Your task to perform on an android device: Clear the cart on target.com. Add macbook pro 13 inch to the cart on target.com, then select checkout. Image 0: 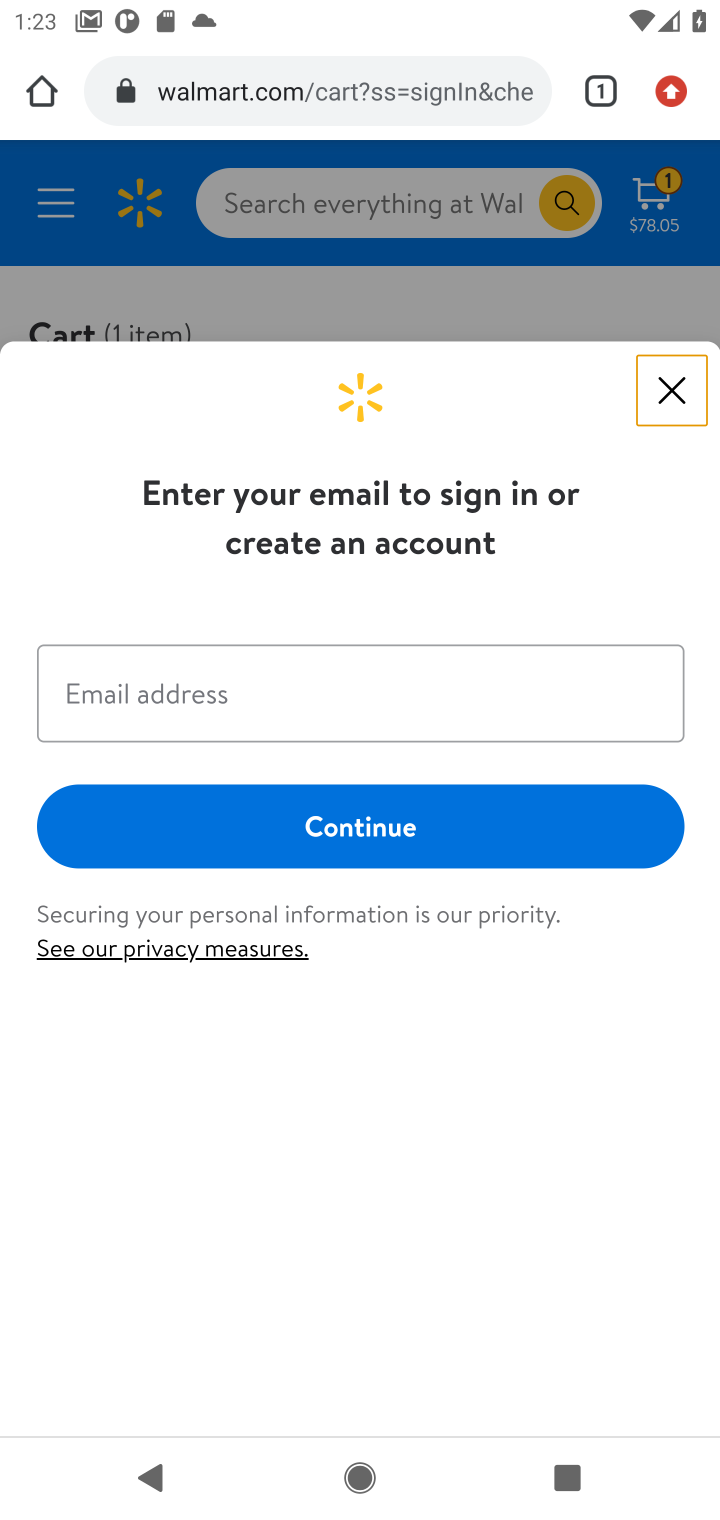
Step 0: press home button
Your task to perform on an android device: Clear the cart on target.com. Add macbook pro 13 inch to the cart on target.com, then select checkout. Image 1: 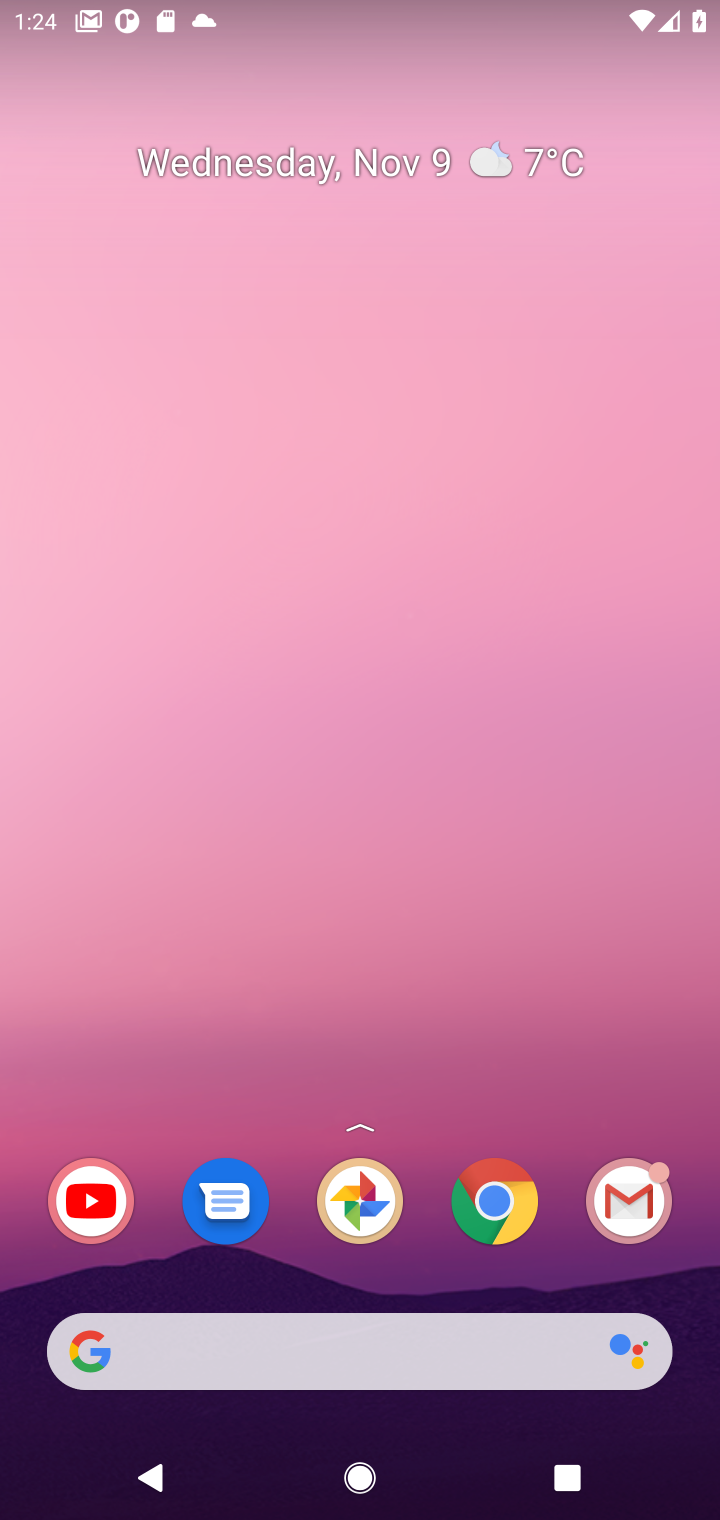
Step 1: click (330, 1370)
Your task to perform on an android device: Clear the cart on target.com. Add macbook pro 13 inch to the cart on target.com, then select checkout. Image 2: 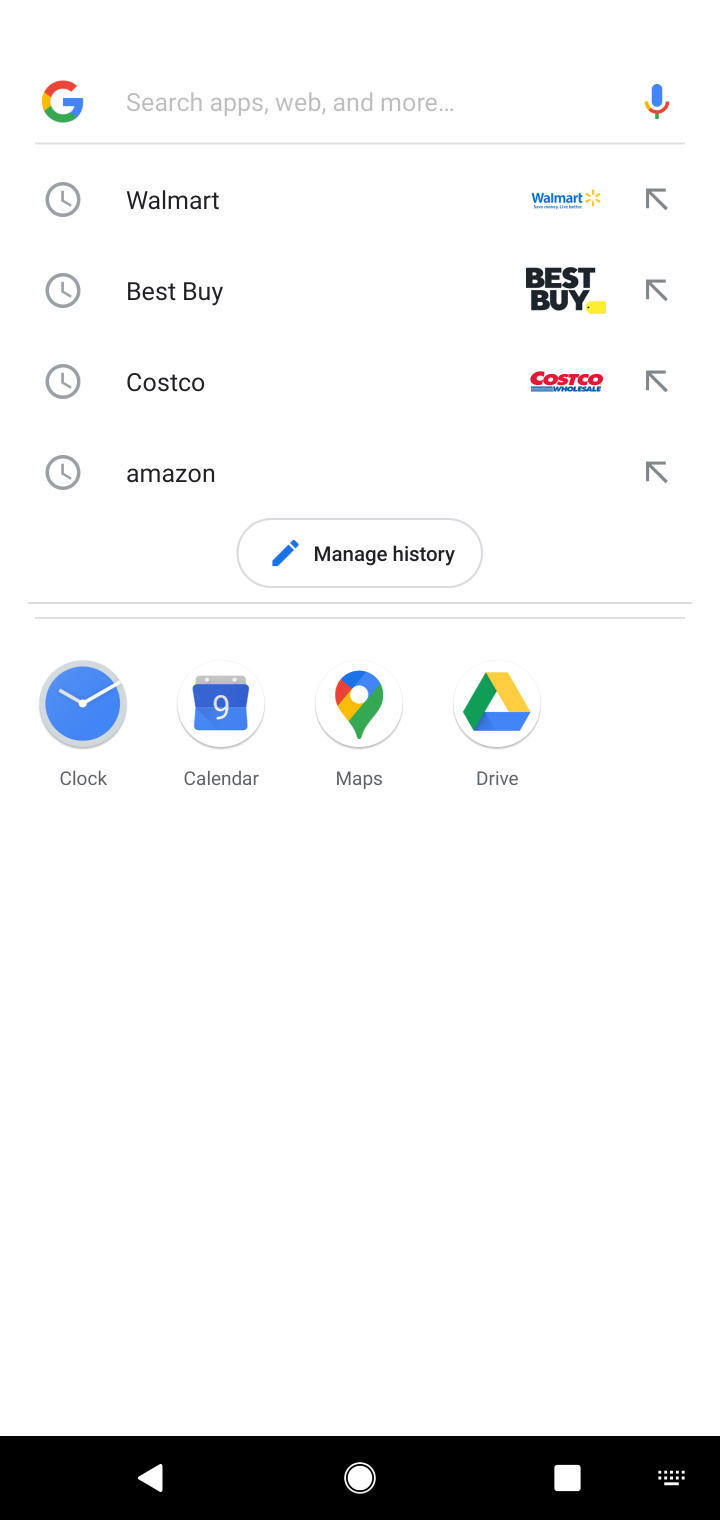
Step 2: type " target.com"
Your task to perform on an android device: Clear the cart on target.com. Add macbook pro 13 inch to the cart on target.com, then select checkout. Image 3: 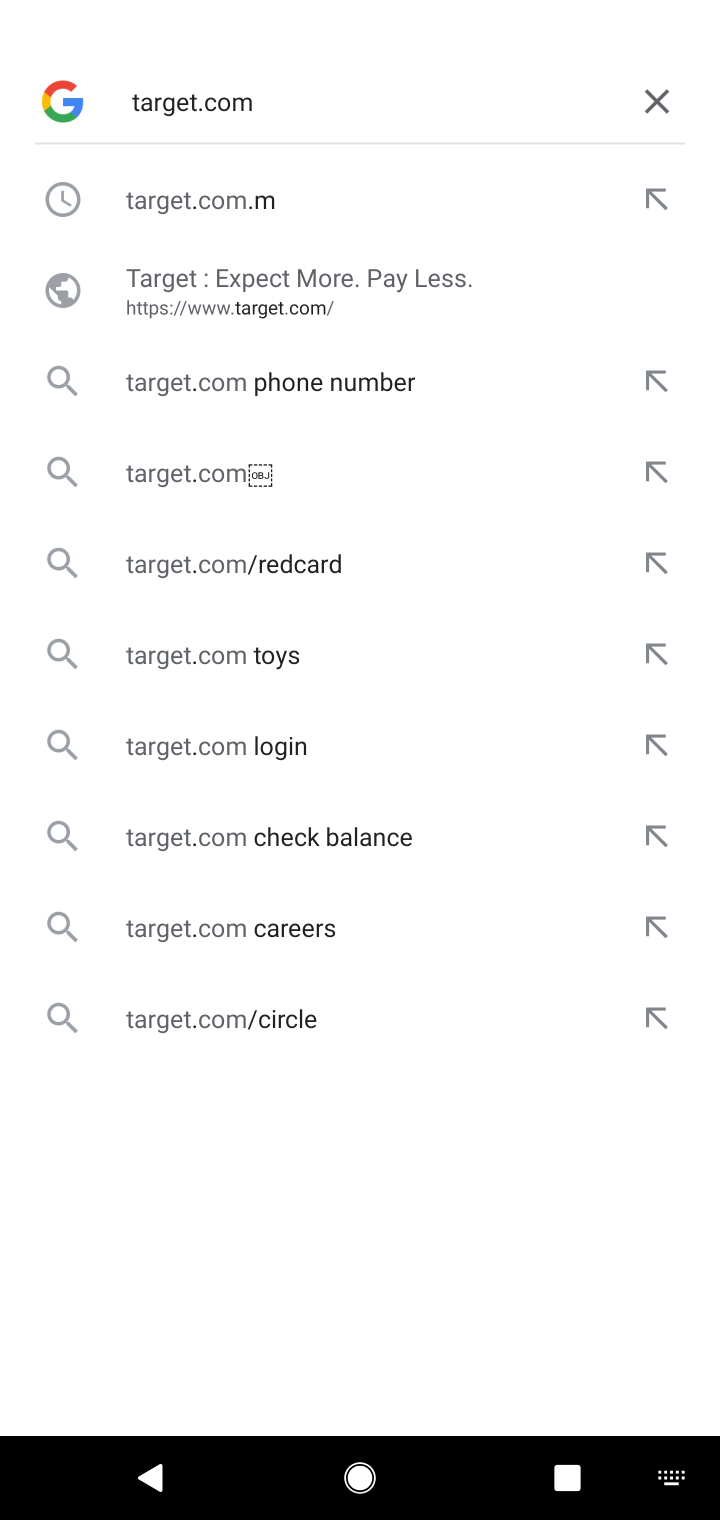
Step 3: click (288, 302)
Your task to perform on an android device: Clear the cart on target.com. Add macbook pro 13 inch to the cart on target.com, then select checkout. Image 4: 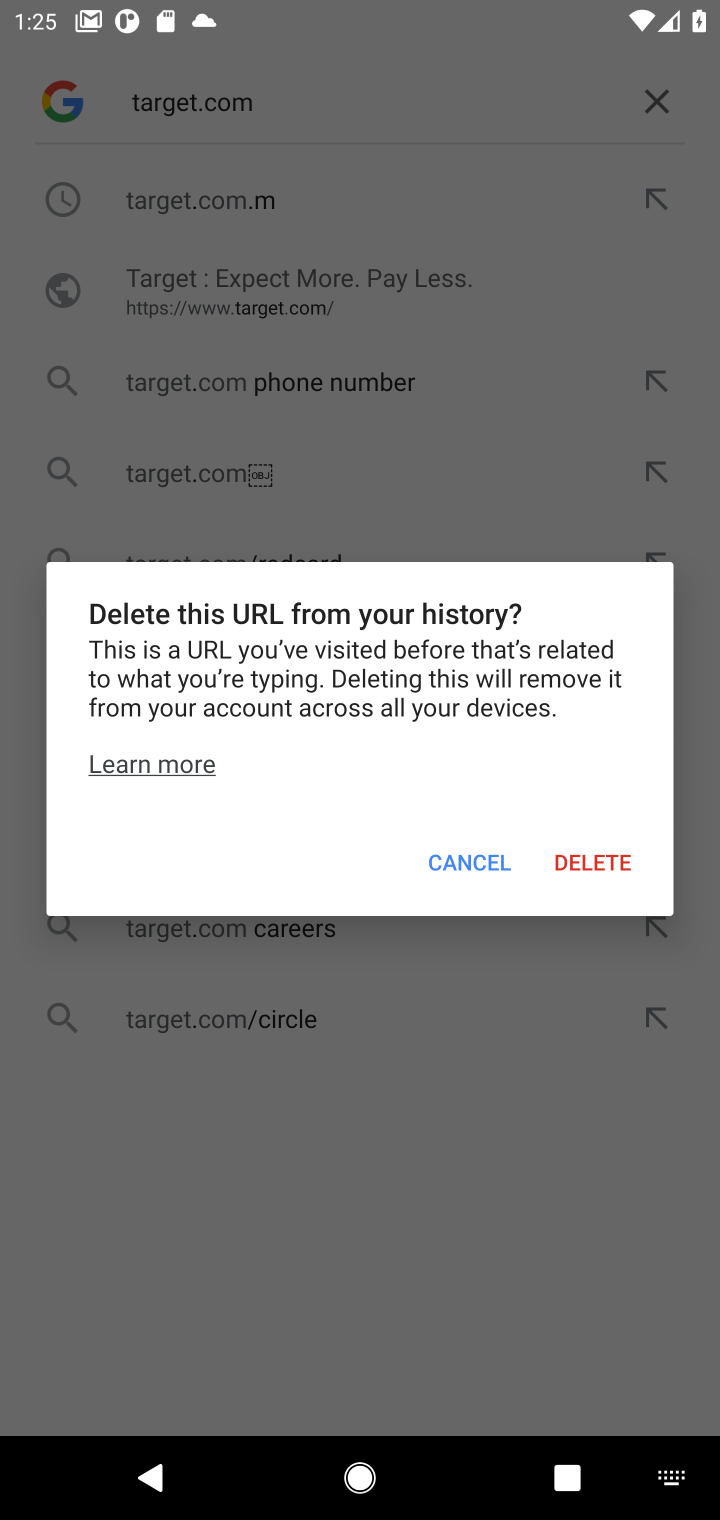
Step 4: click (460, 862)
Your task to perform on an android device: Clear the cart on target.com. Add macbook pro 13 inch to the cart on target.com, then select checkout. Image 5: 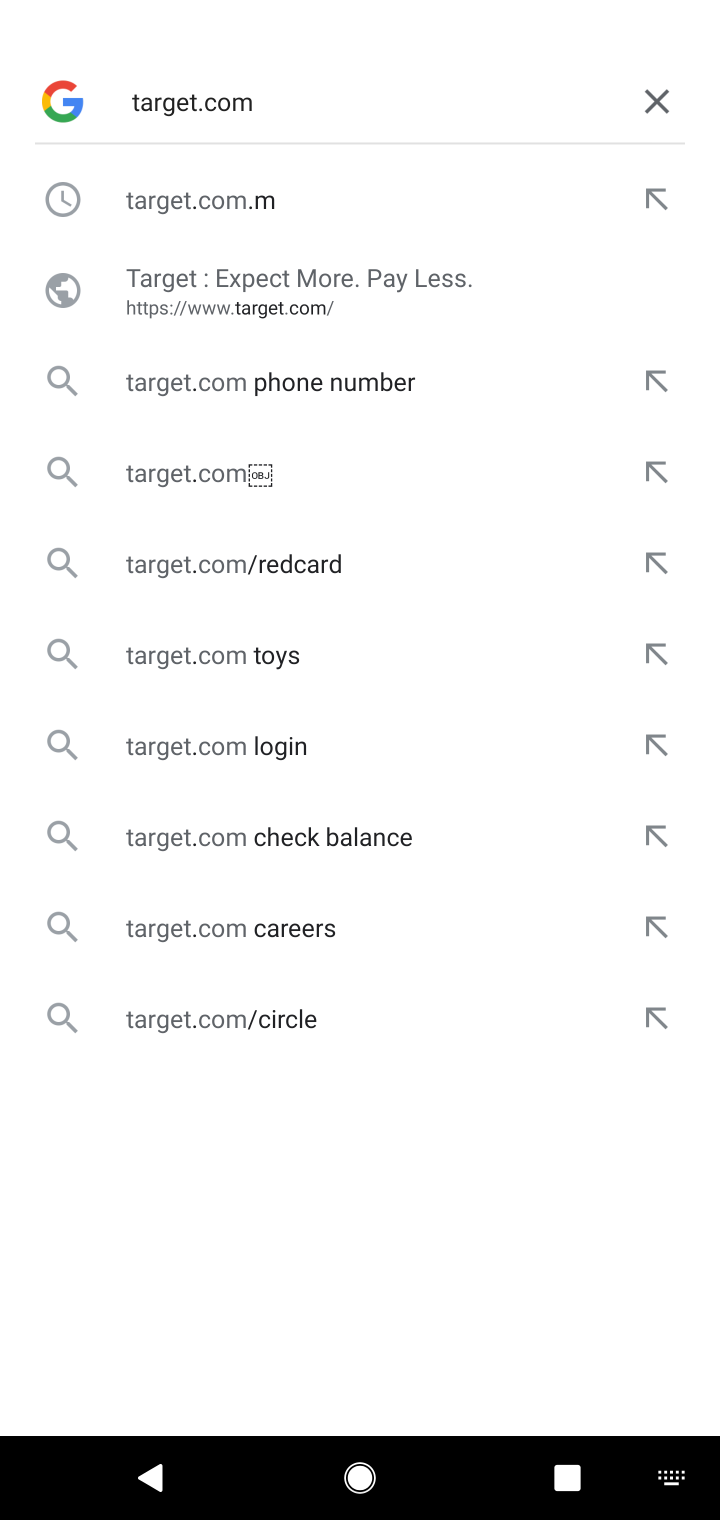
Step 5: click (249, 308)
Your task to perform on an android device: Clear the cart on target.com. Add macbook pro 13 inch to the cart on target.com, then select checkout. Image 6: 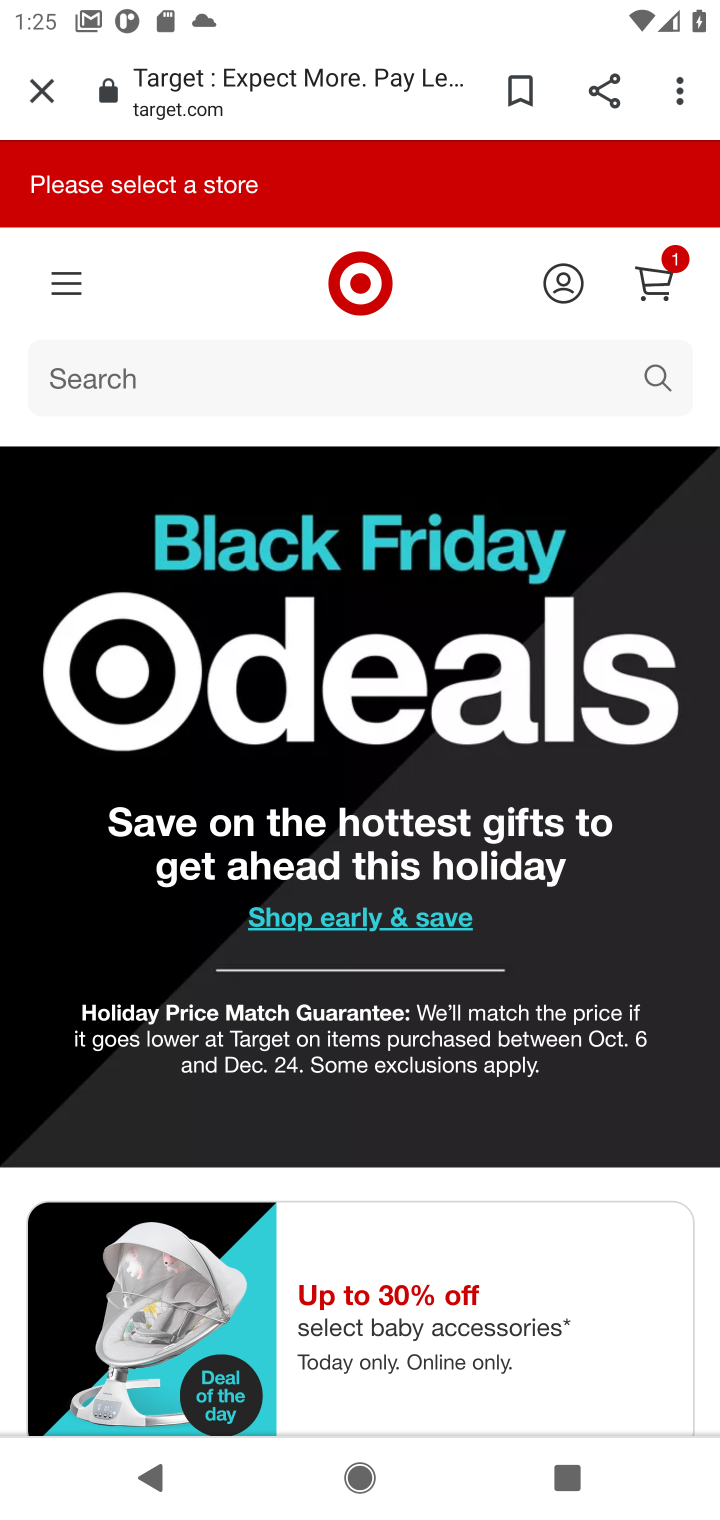
Step 6: click (393, 375)
Your task to perform on an android device: Clear the cart on target.com. Add macbook pro 13 inch to the cart on target.com, then select checkout. Image 7: 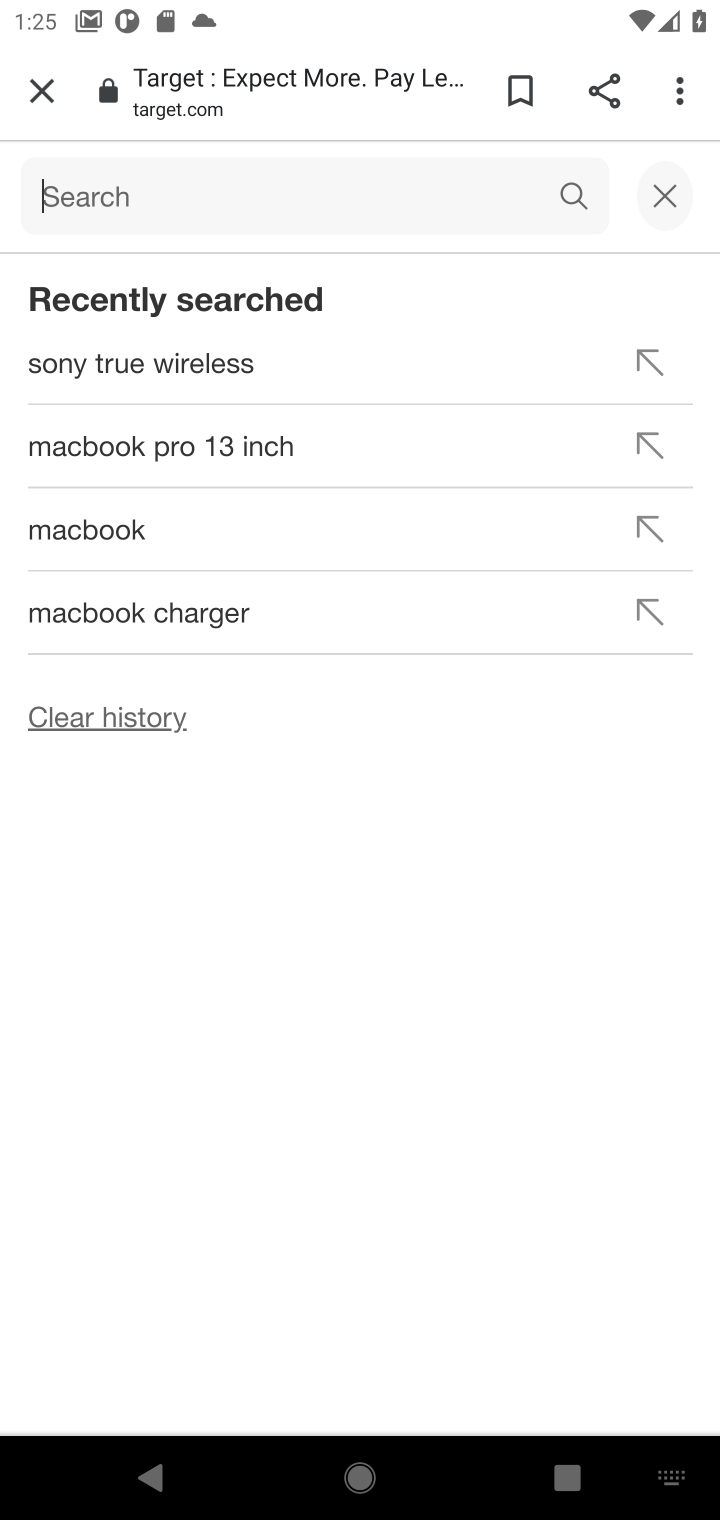
Step 7: type " macbook pro 13"
Your task to perform on an android device: Clear the cart on target.com. Add macbook pro 13 inch to the cart on target.com, then select checkout. Image 8: 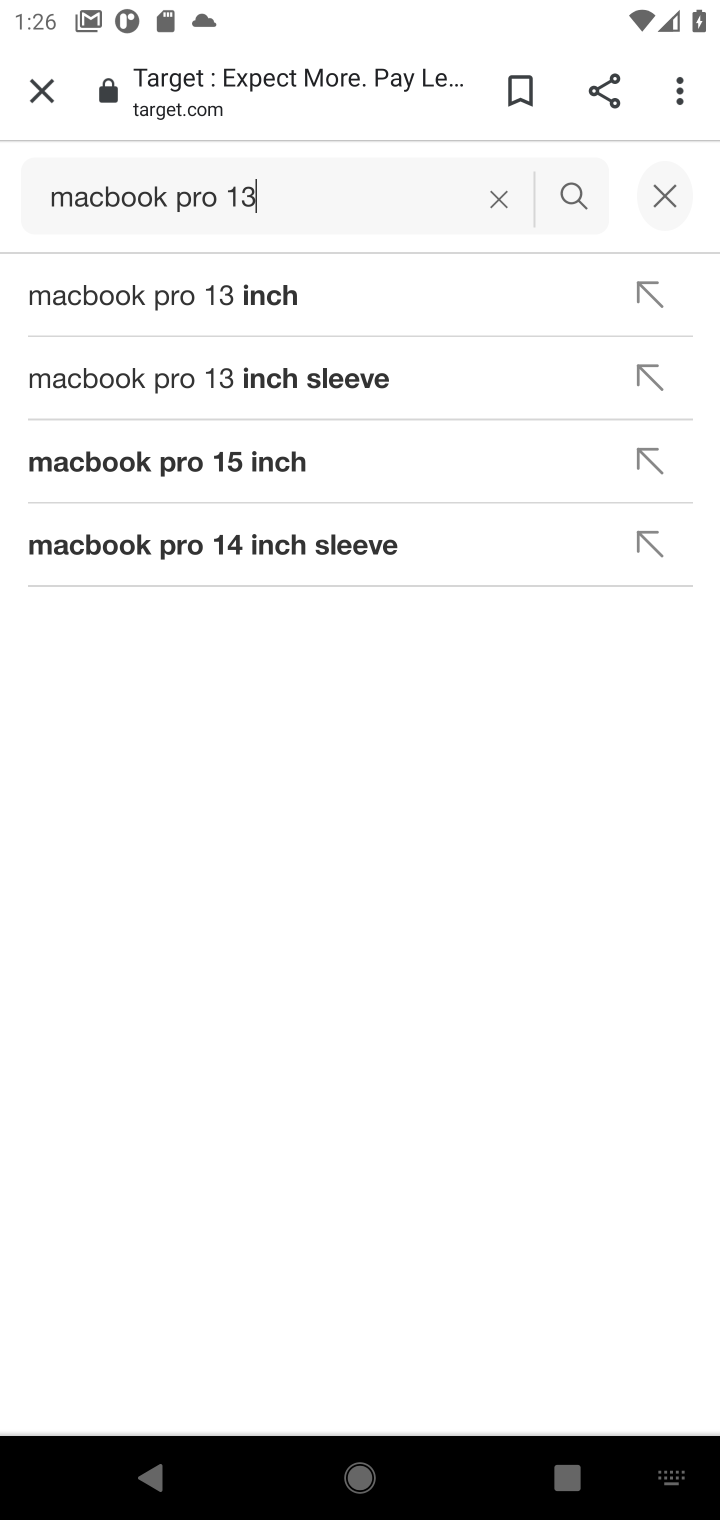
Step 8: click (243, 302)
Your task to perform on an android device: Clear the cart on target.com. Add macbook pro 13 inch to the cart on target.com, then select checkout. Image 9: 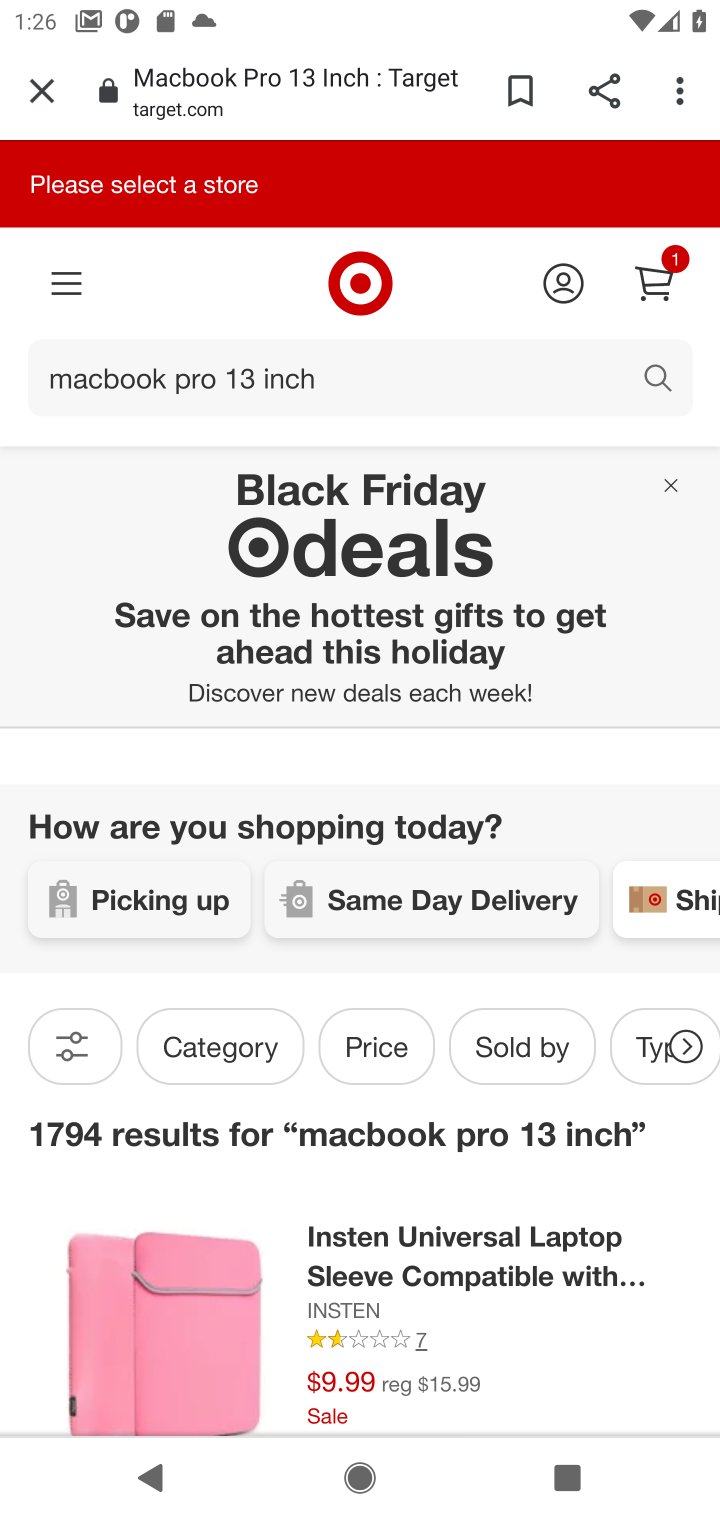
Step 9: drag from (378, 1268) to (422, 886)
Your task to perform on an android device: Clear the cart on target.com. Add macbook pro 13 inch to the cart on target.com, then select checkout. Image 10: 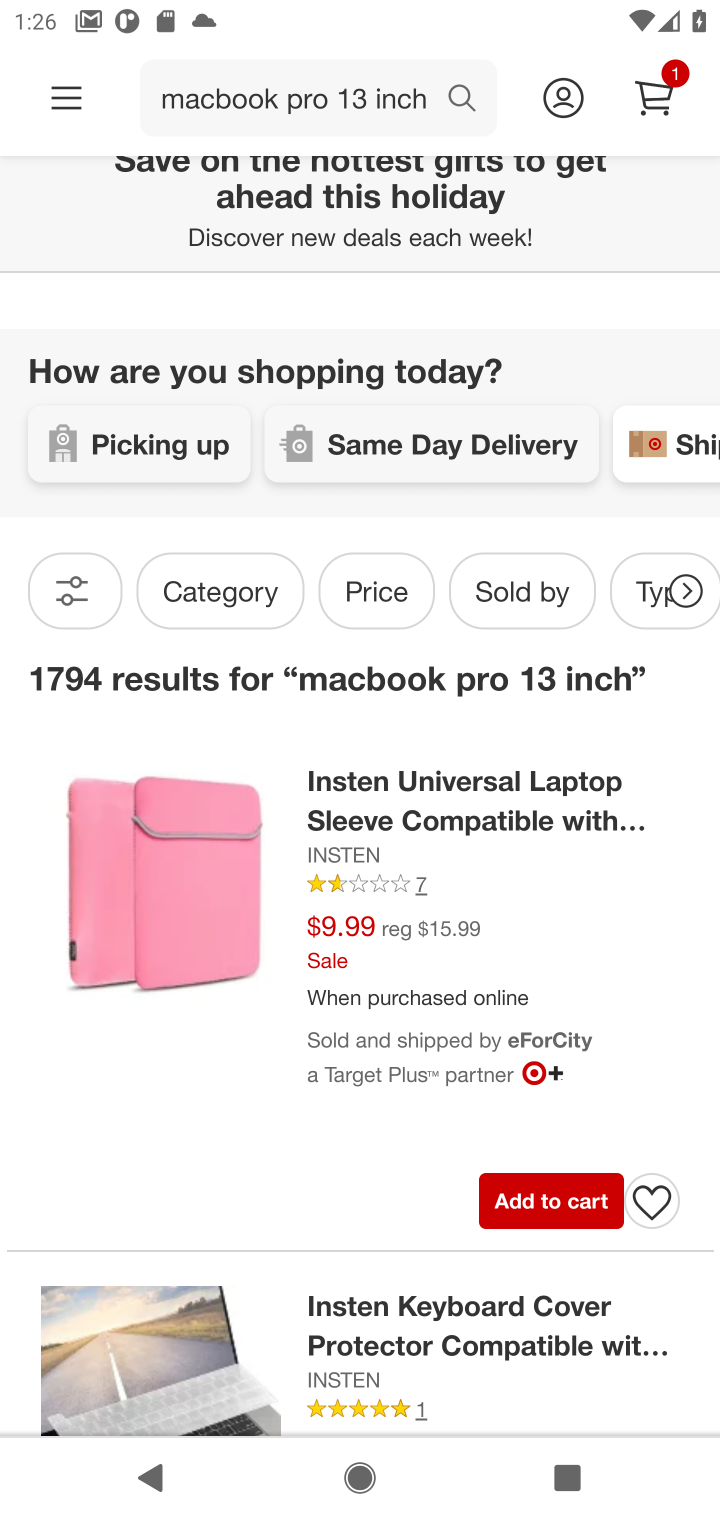
Step 10: click (532, 1197)
Your task to perform on an android device: Clear the cart on target.com. Add macbook pro 13 inch to the cart on target.com, then select checkout. Image 11: 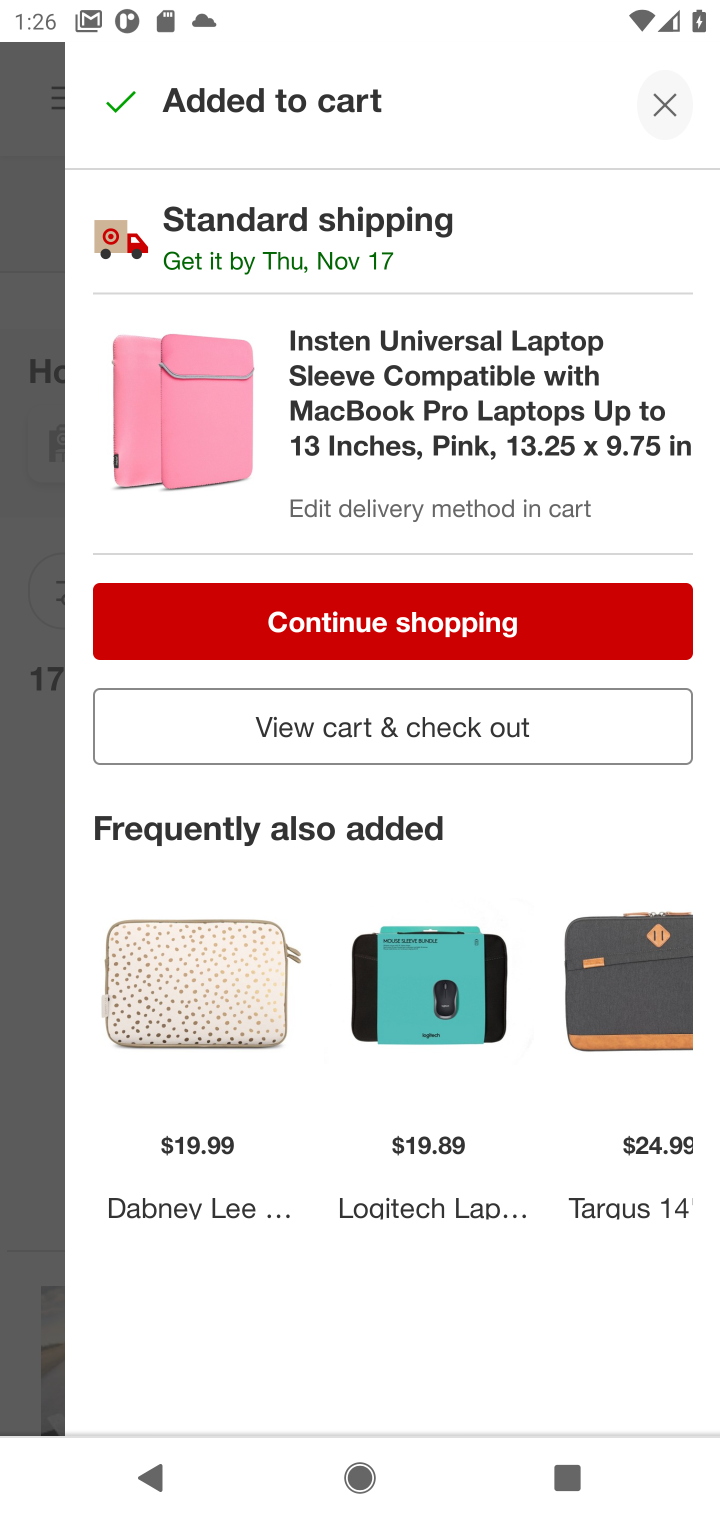
Step 11: click (662, 102)
Your task to perform on an android device: Clear the cart on target.com. Add macbook pro 13 inch to the cart on target.com, then select checkout. Image 12: 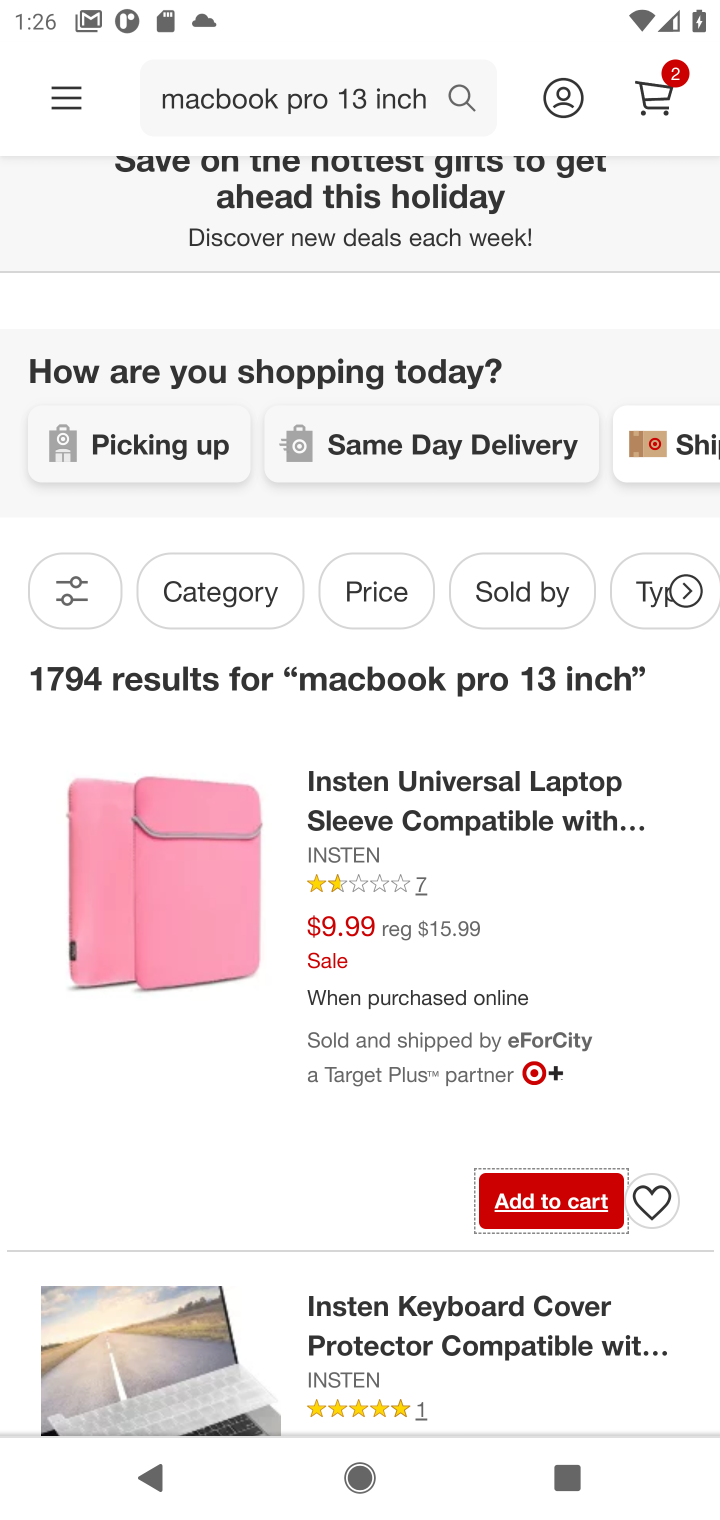
Step 12: task complete